Your task to perform on an android device: Open the calendar app, open the side menu, and click the "Day" option Image 0: 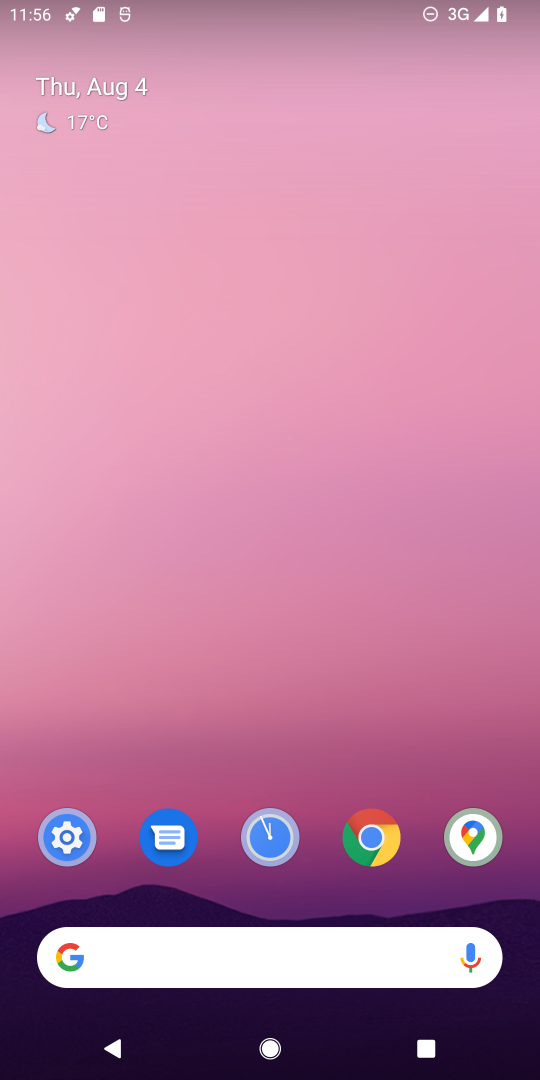
Step 0: drag from (454, 900) to (256, 67)
Your task to perform on an android device: Open the calendar app, open the side menu, and click the "Day" option Image 1: 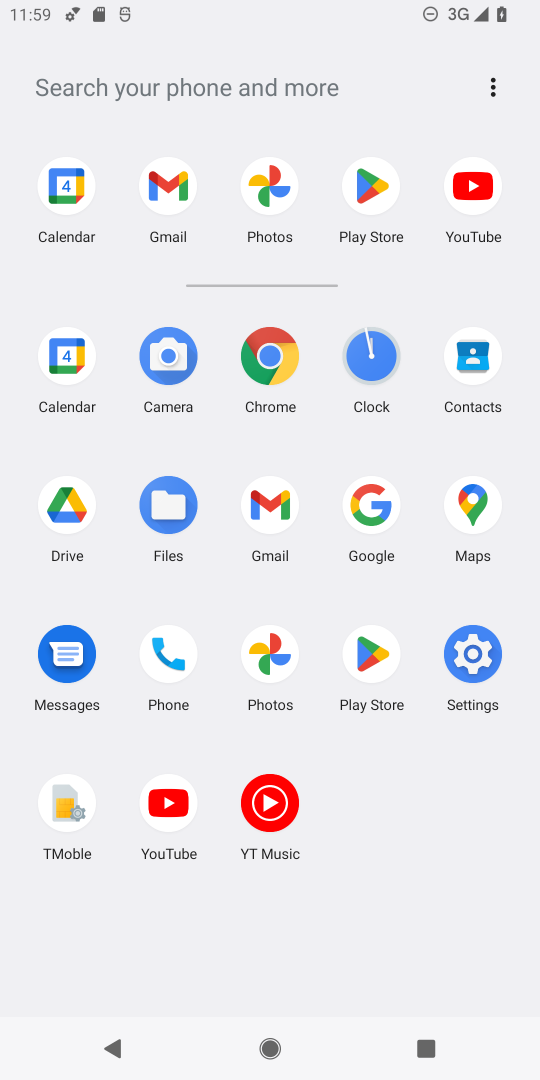
Step 1: click (68, 376)
Your task to perform on an android device: Open the calendar app, open the side menu, and click the "Day" option Image 2: 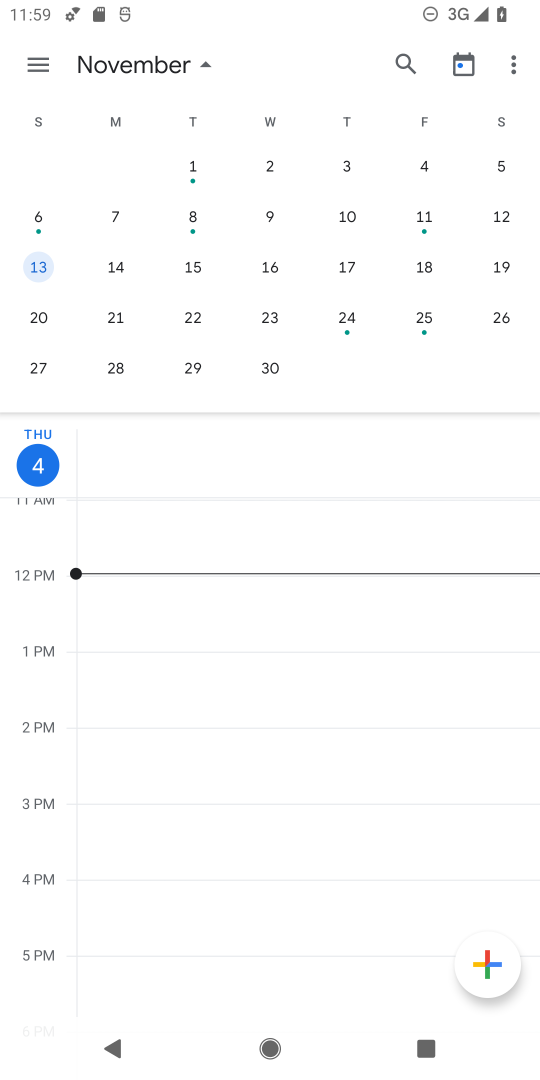
Step 2: click (36, 63)
Your task to perform on an android device: Open the calendar app, open the side menu, and click the "Day" option Image 3: 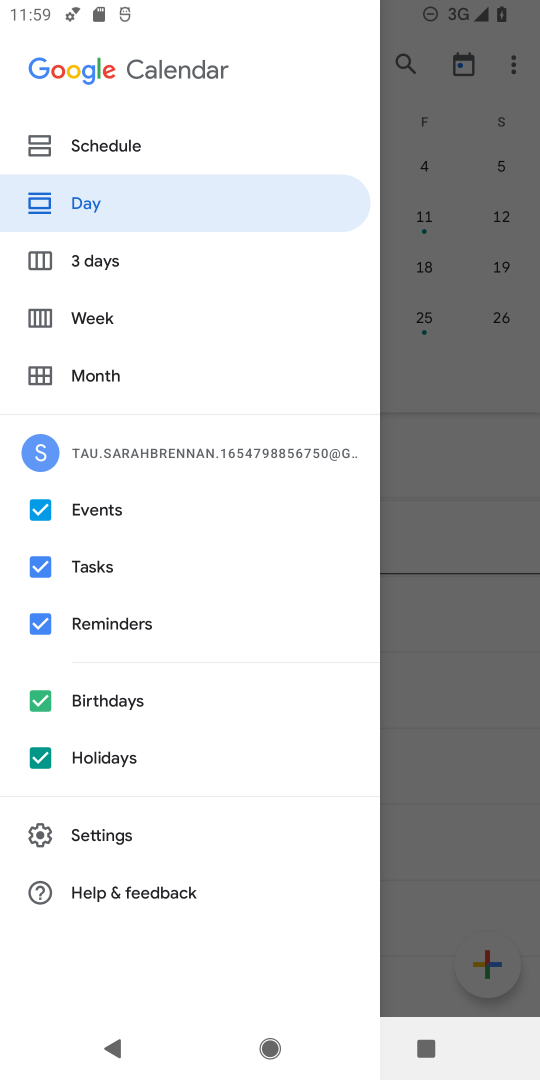
Step 3: click (173, 206)
Your task to perform on an android device: Open the calendar app, open the side menu, and click the "Day" option Image 4: 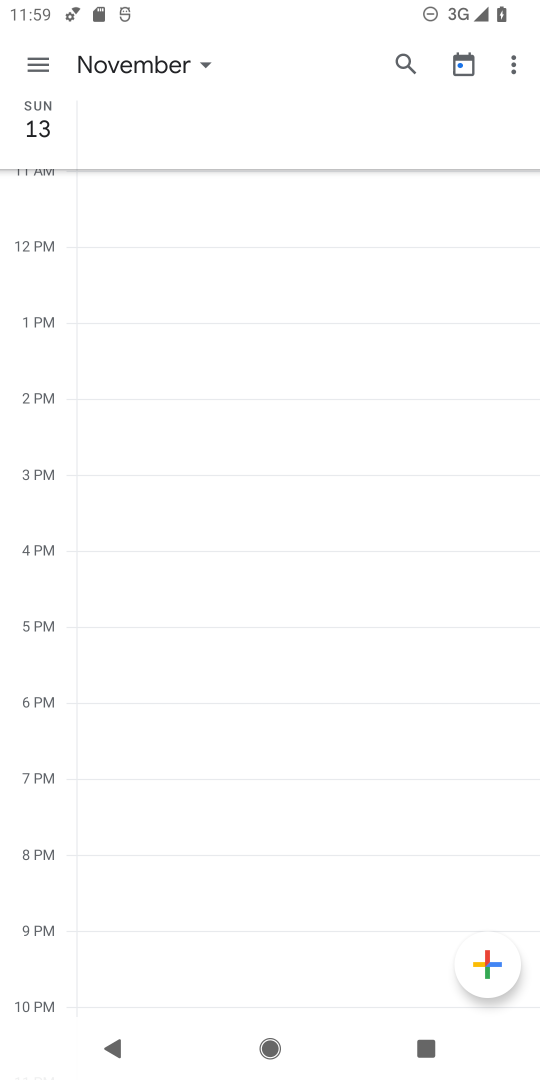
Step 4: task complete